Your task to perform on an android device: open app "Life360: Find Family & Friends" Image 0: 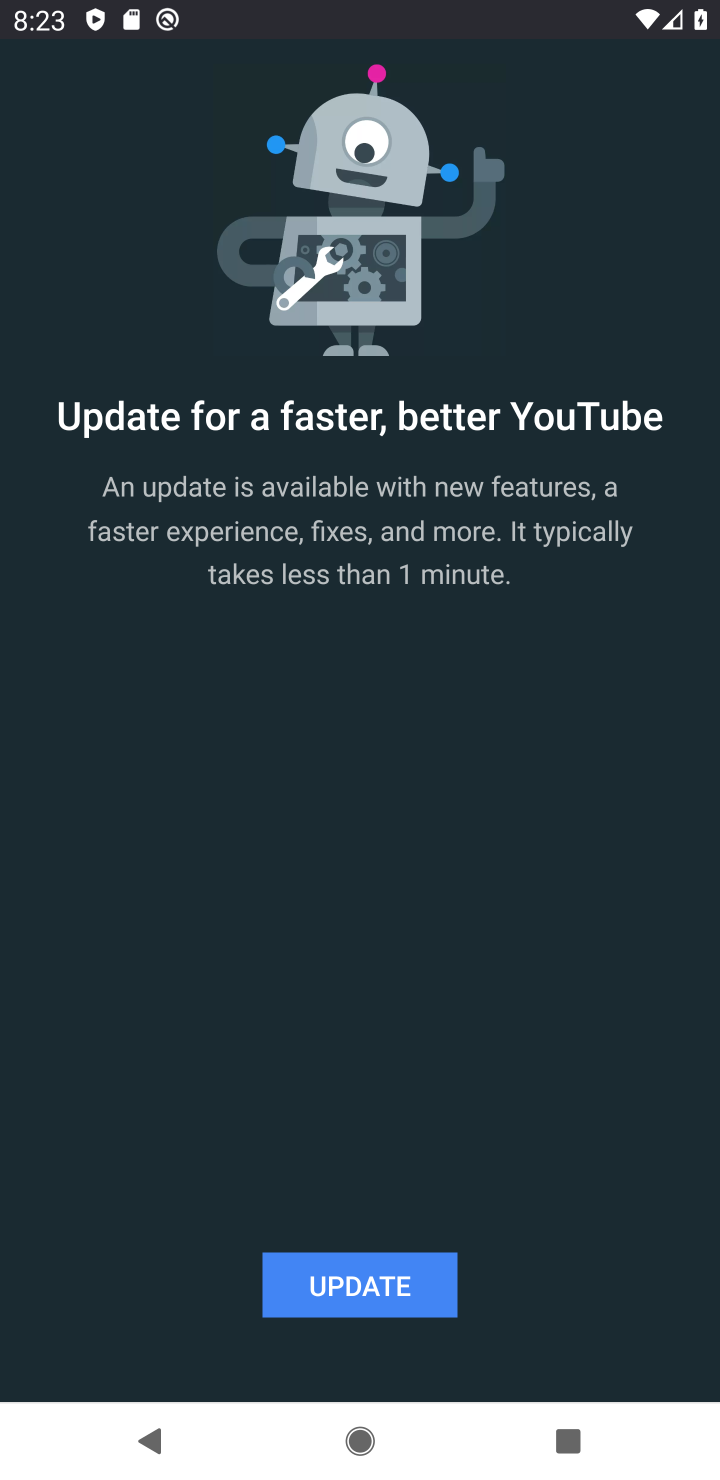
Step 0: press back button
Your task to perform on an android device: open app "Life360: Find Family & Friends" Image 1: 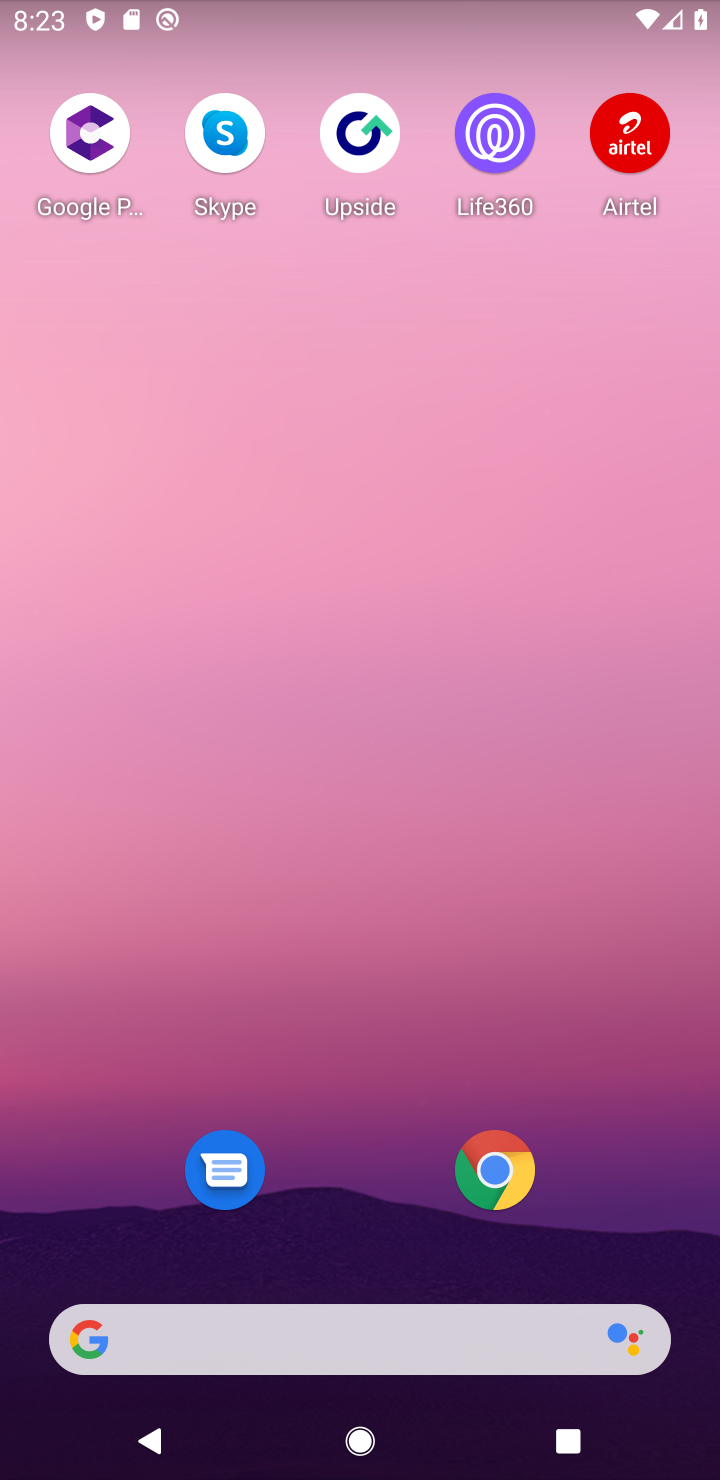
Step 1: press back button
Your task to perform on an android device: open app "Life360: Find Family & Friends" Image 2: 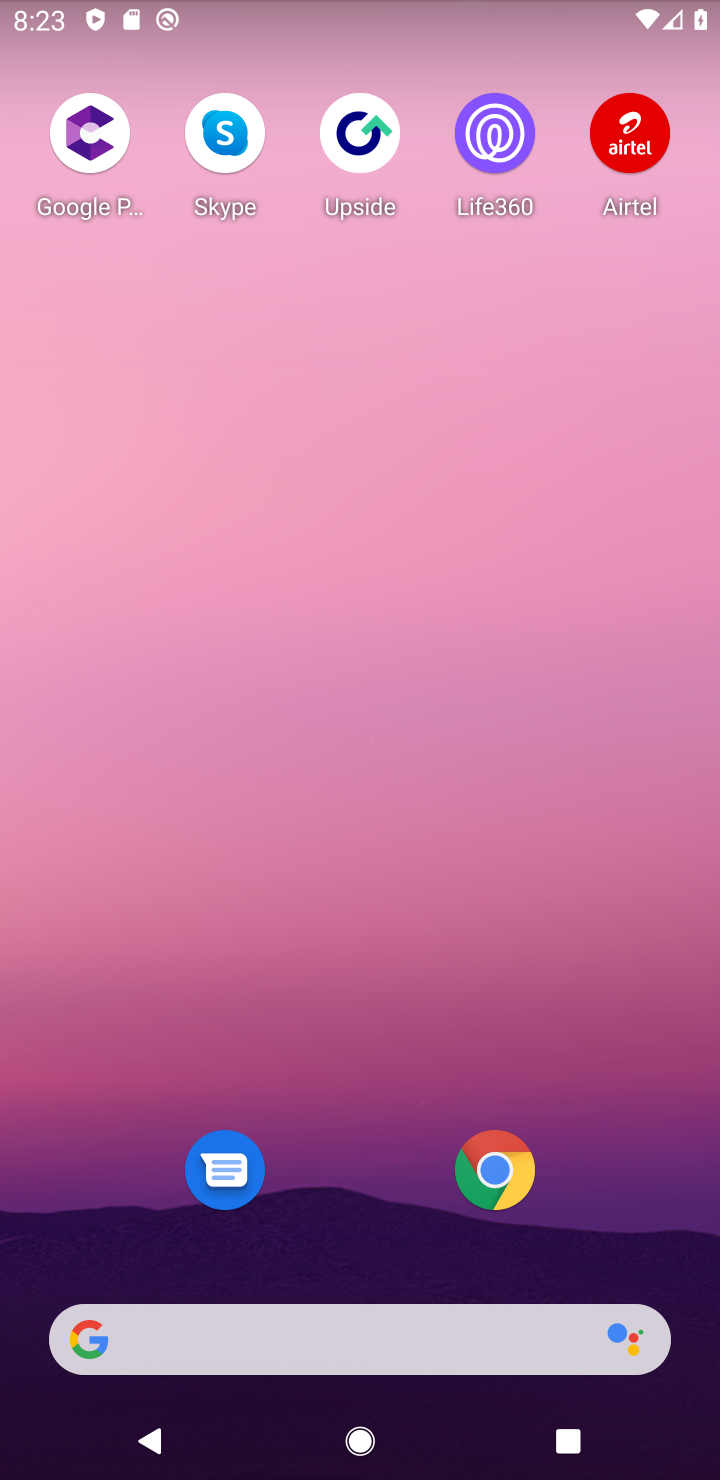
Step 2: drag from (407, 677) to (491, 24)
Your task to perform on an android device: open app "Life360: Find Family & Friends" Image 3: 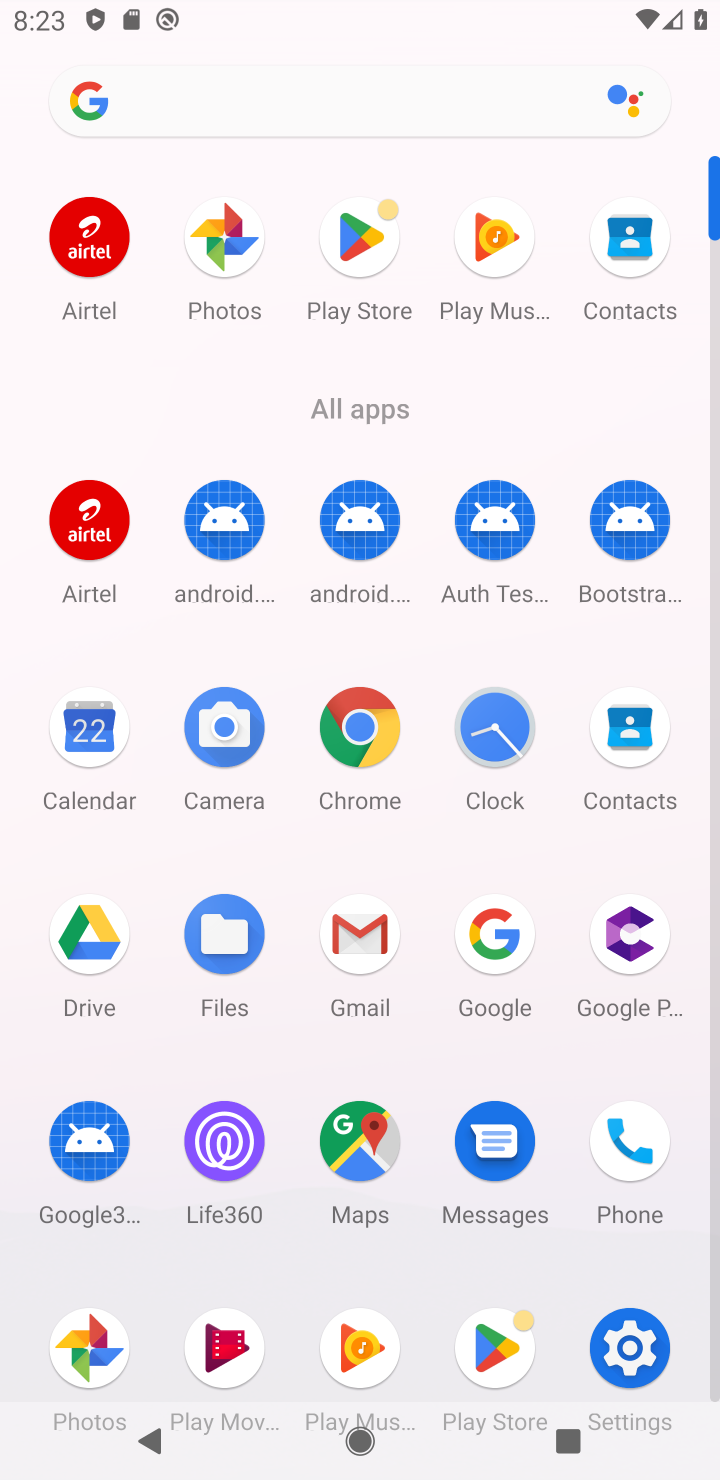
Step 3: click (361, 222)
Your task to perform on an android device: open app "Life360: Find Family & Friends" Image 4: 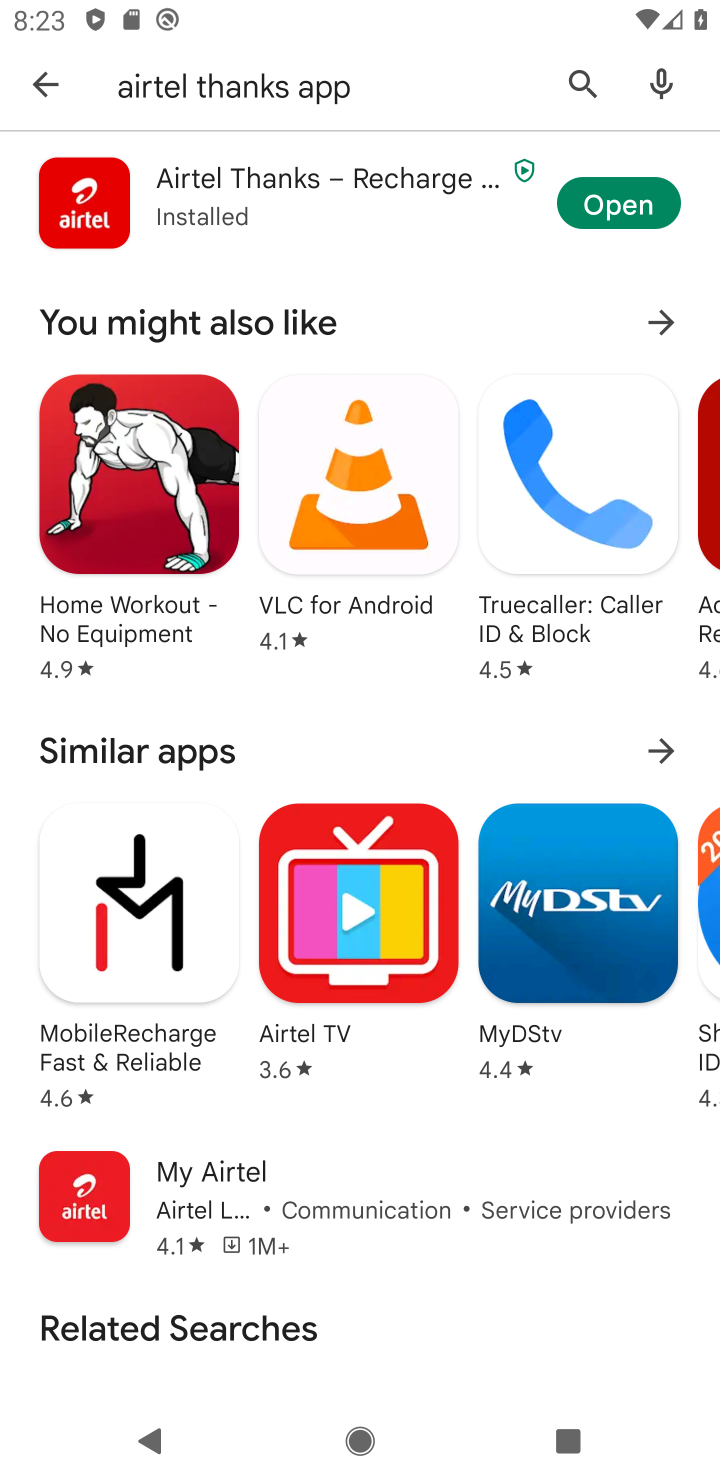
Step 4: click (586, 67)
Your task to perform on an android device: open app "Life360: Find Family & Friends" Image 5: 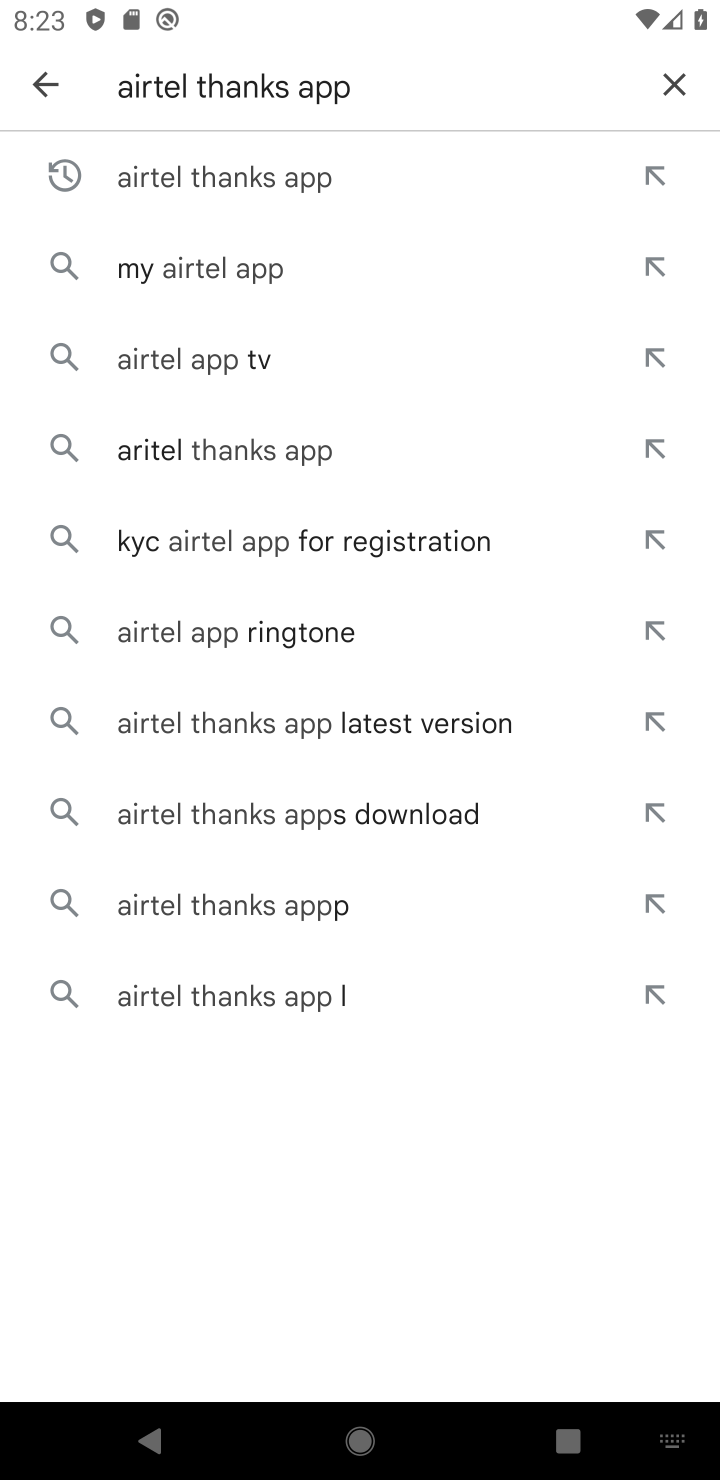
Step 5: click (701, 73)
Your task to perform on an android device: open app "Life360: Find Family & Friends" Image 6: 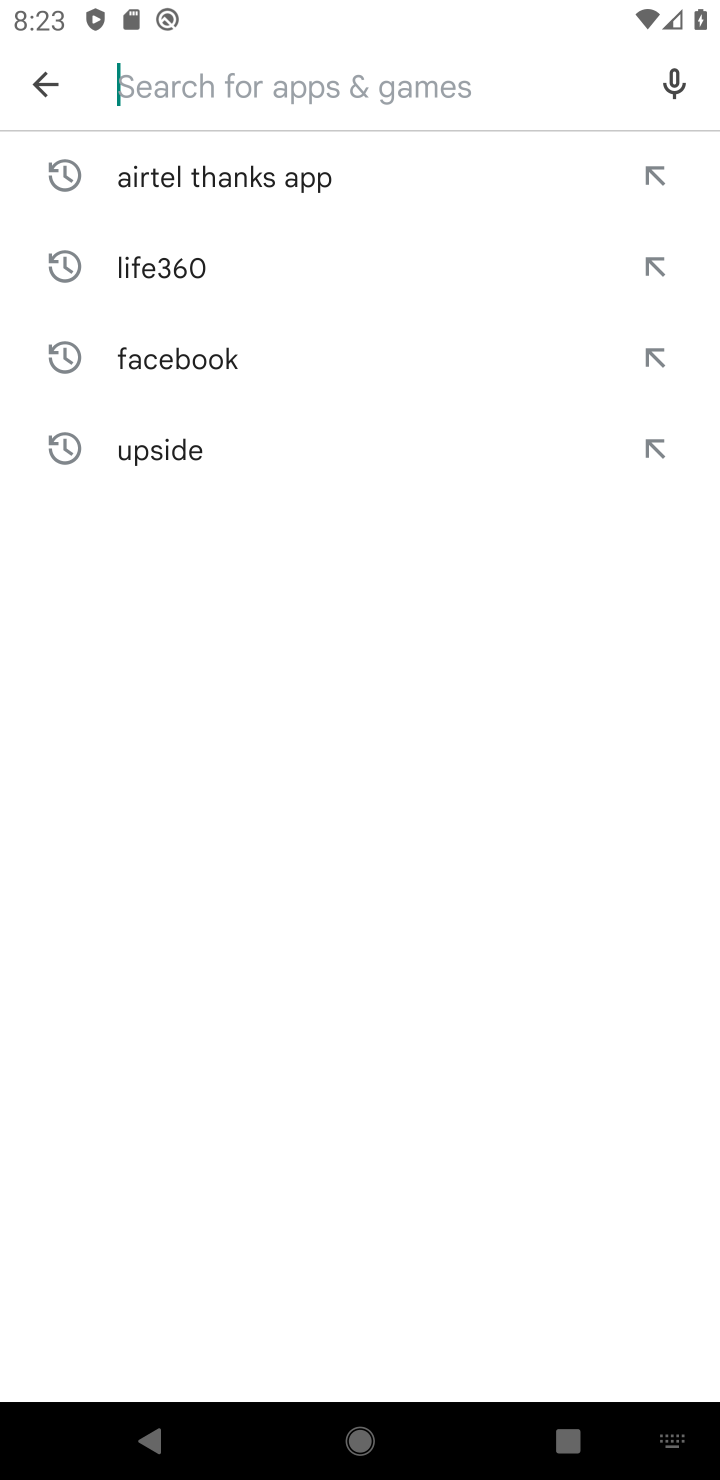
Step 6: click (303, 96)
Your task to perform on an android device: open app "Life360: Find Family & Friends" Image 7: 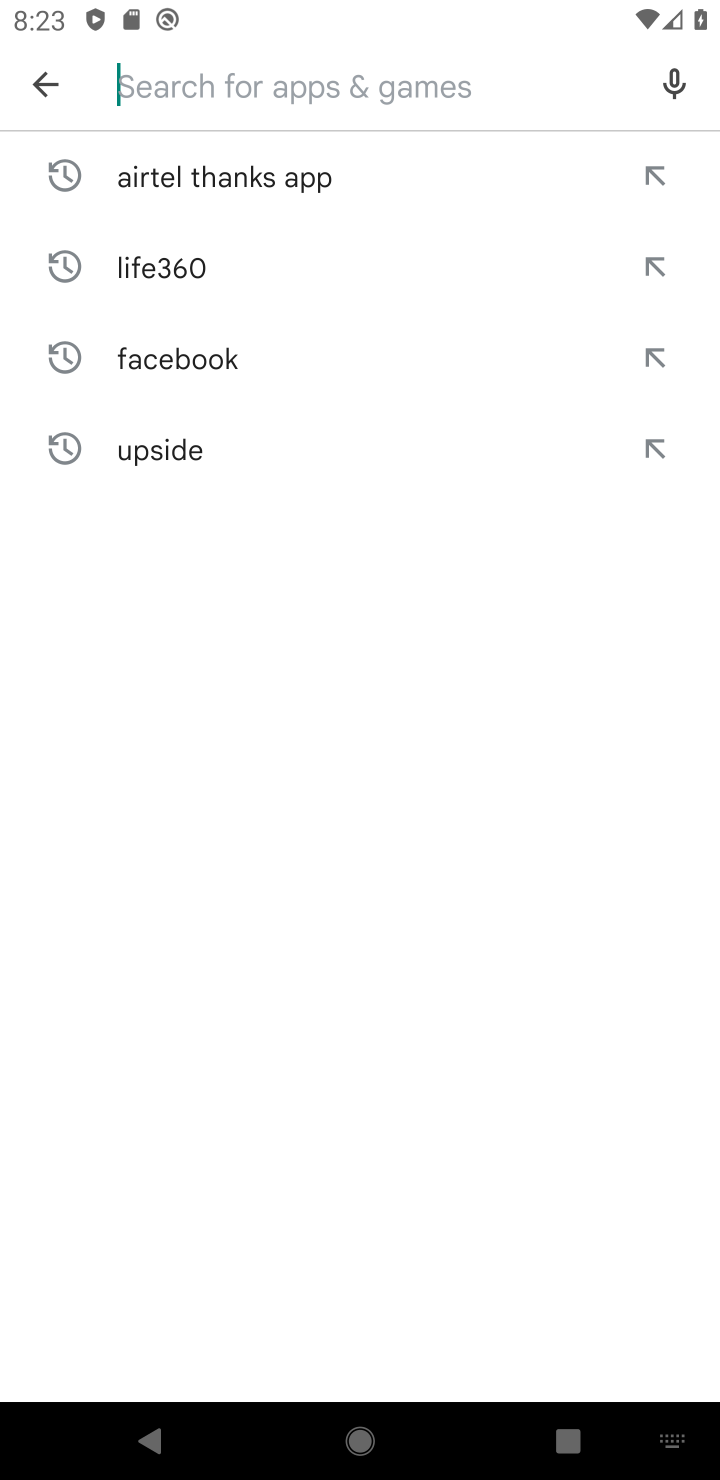
Step 7: type "life 360"
Your task to perform on an android device: open app "Life360: Find Family & Friends" Image 8: 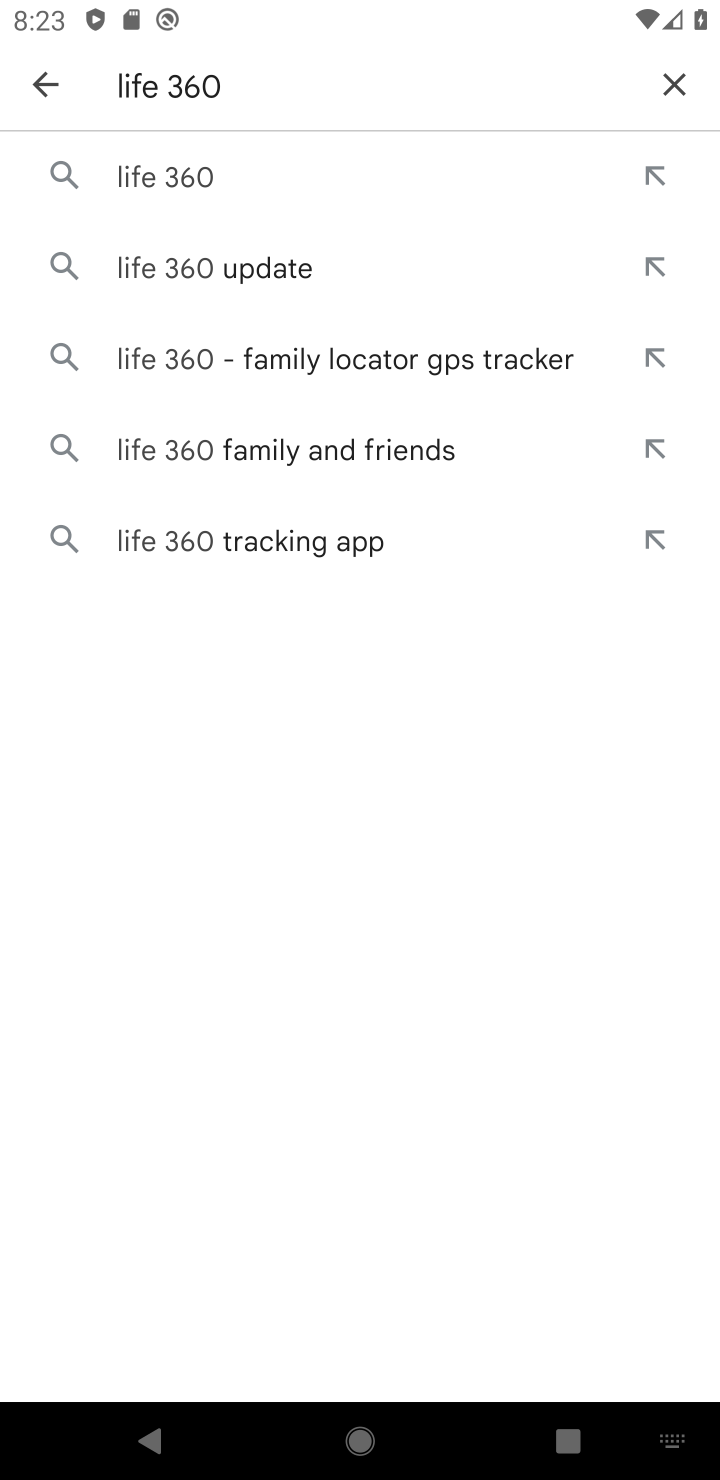
Step 8: click (204, 174)
Your task to perform on an android device: open app "Life360: Find Family & Friends" Image 9: 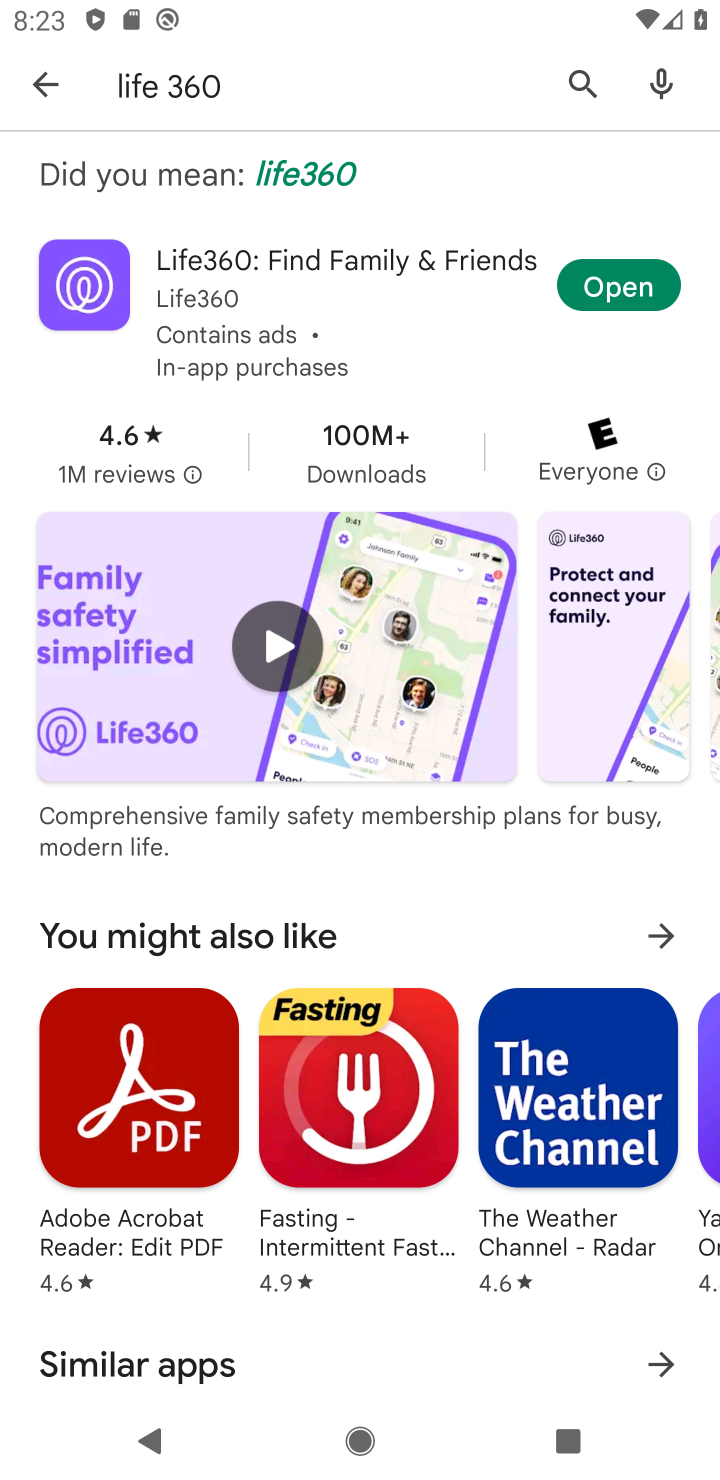
Step 9: click (627, 281)
Your task to perform on an android device: open app "Life360: Find Family & Friends" Image 10: 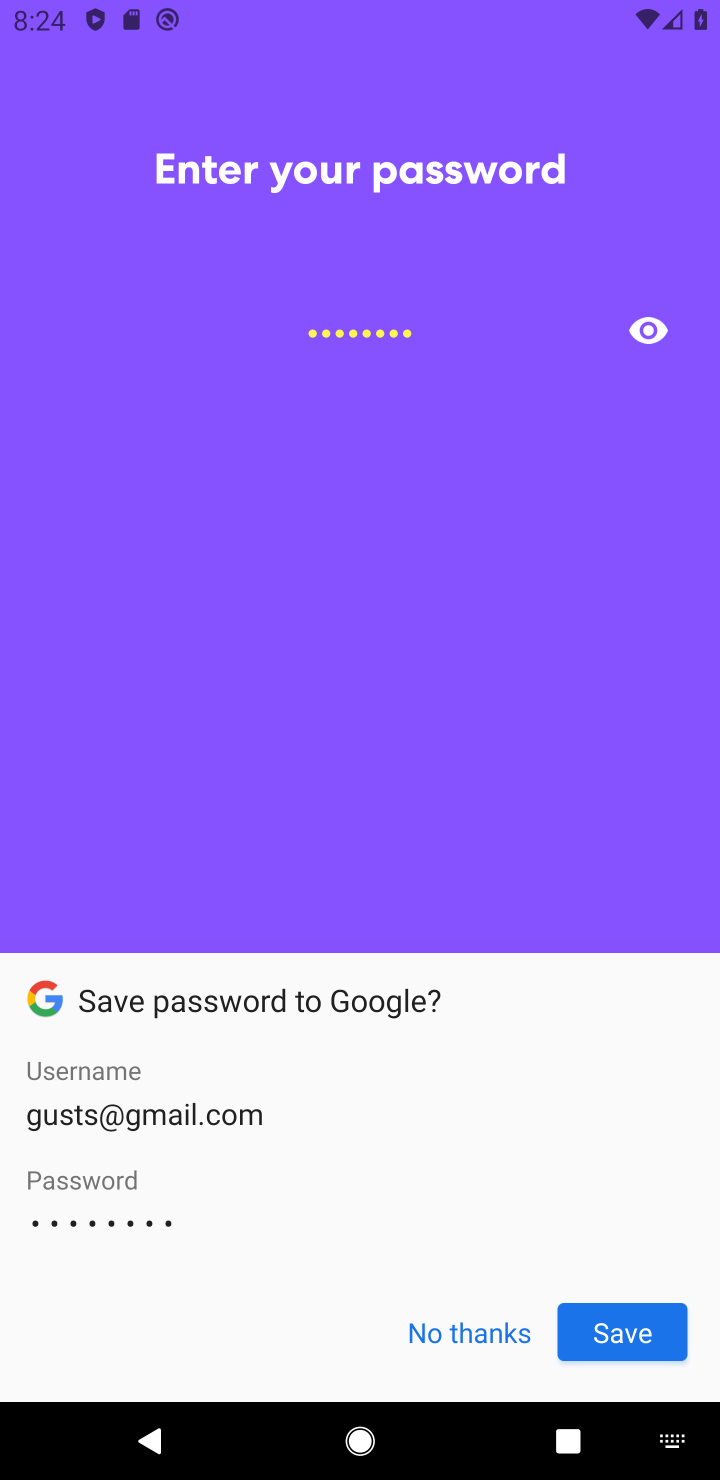
Step 10: task complete